Your task to perform on an android device: Open privacy settings Image 0: 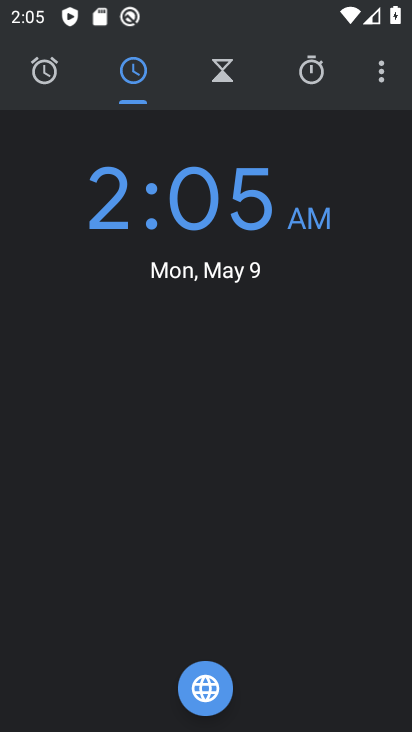
Step 0: press home button
Your task to perform on an android device: Open privacy settings Image 1: 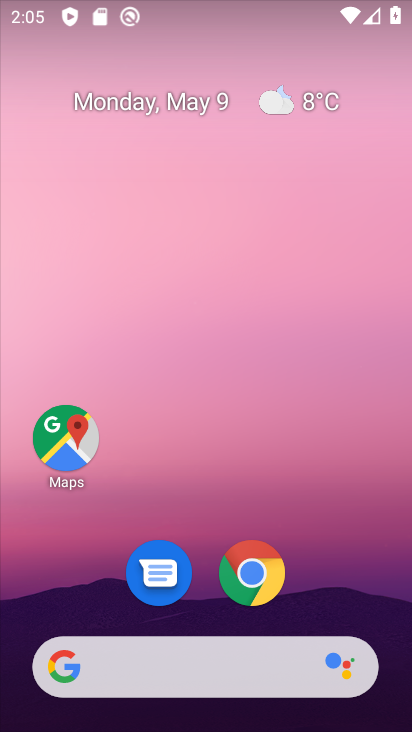
Step 1: drag from (142, 670) to (308, 67)
Your task to perform on an android device: Open privacy settings Image 2: 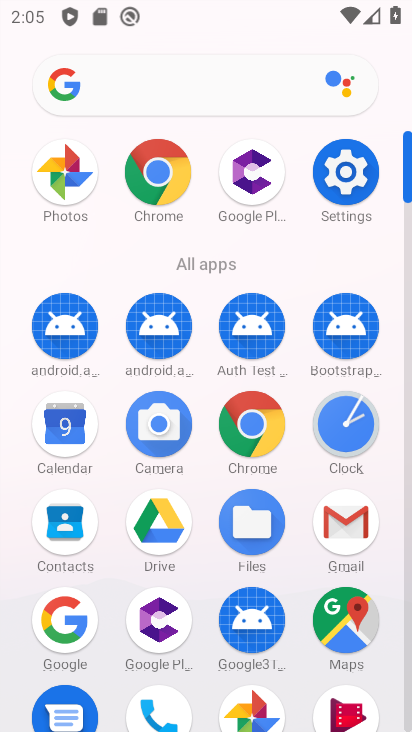
Step 2: click (357, 182)
Your task to perform on an android device: Open privacy settings Image 3: 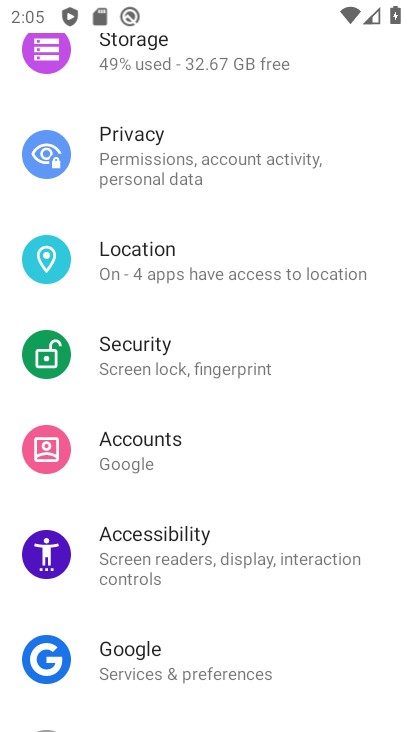
Step 3: click (131, 139)
Your task to perform on an android device: Open privacy settings Image 4: 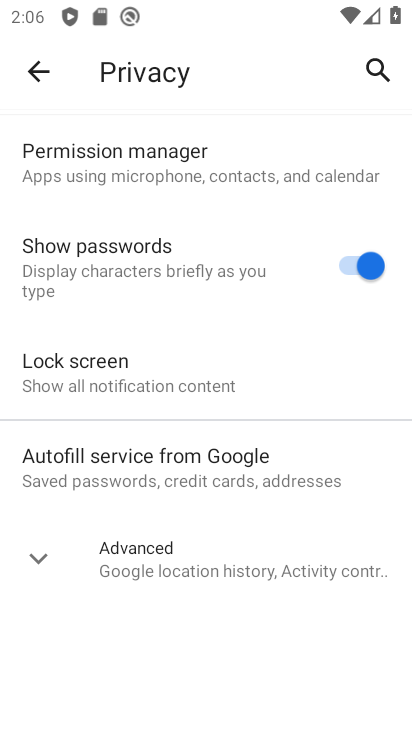
Step 4: task complete